Your task to perform on an android device: Check the news Image 0: 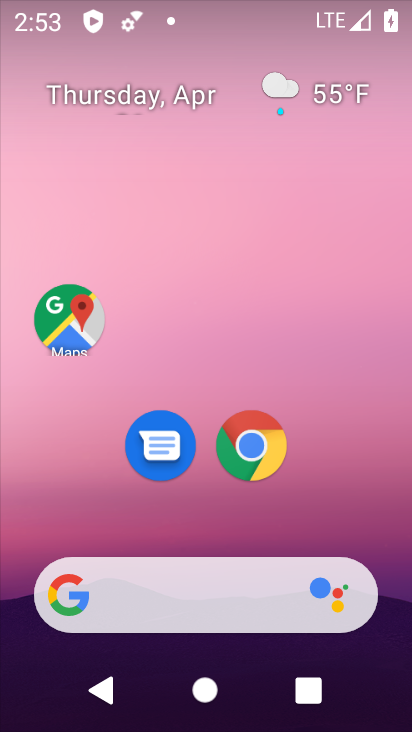
Step 0: drag from (306, 527) to (284, 4)
Your task to perform on an android device: Check the news Image 1: 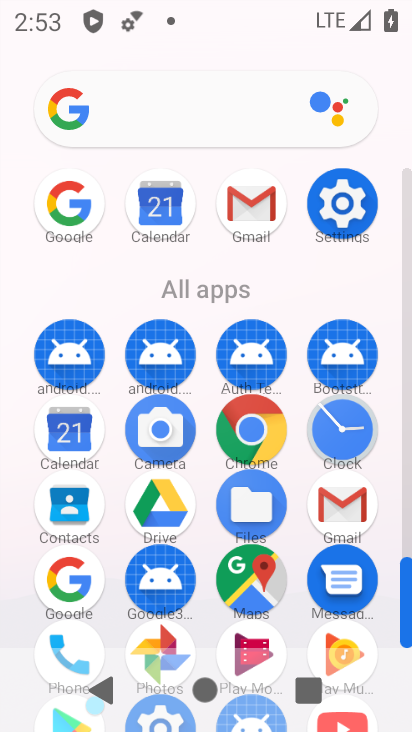
Step 1: click (68, 206)
Your task to perform on an android device: Check the news Image 2: 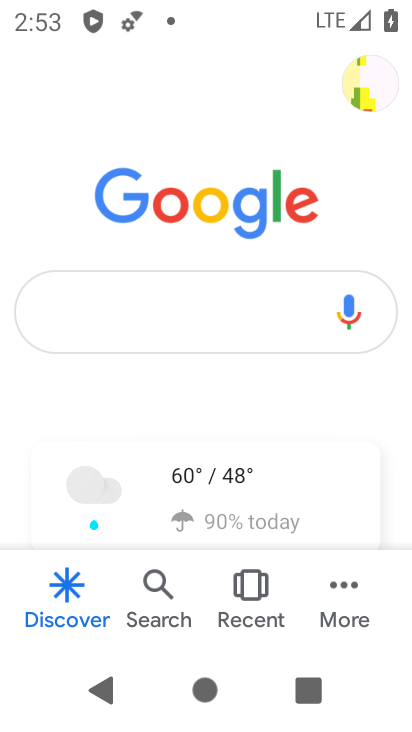
Step 2: click (181, 313)
Your task to perform on an android device: Check the news Image 3: 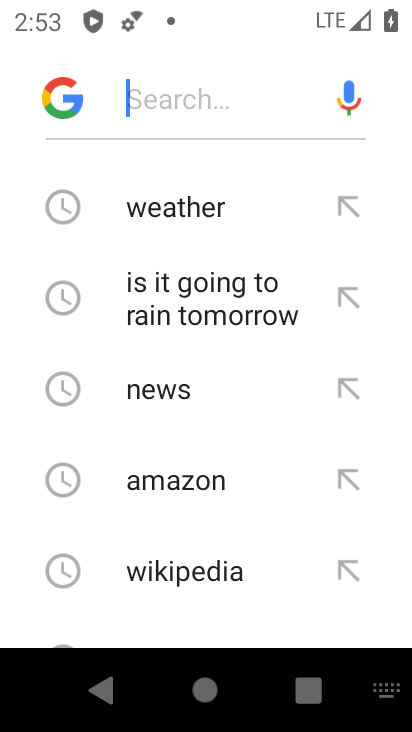
Step 3: click (170, 397)
Your task to perform on an android device: Check the news Image 4: 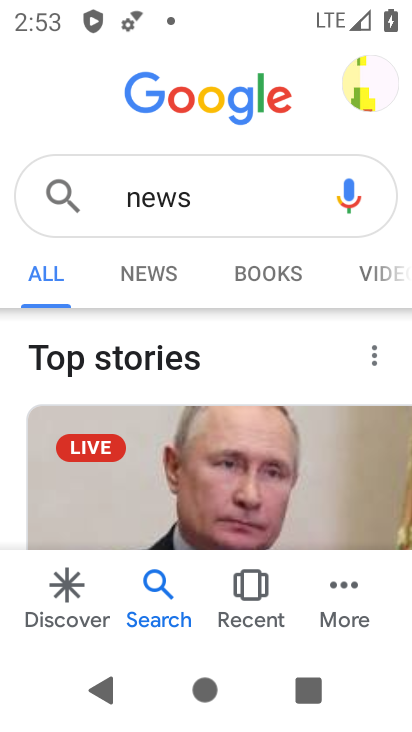
Step 4: task complete